Your task to perform on an android device: turn on translation in the chrome app Image 0: 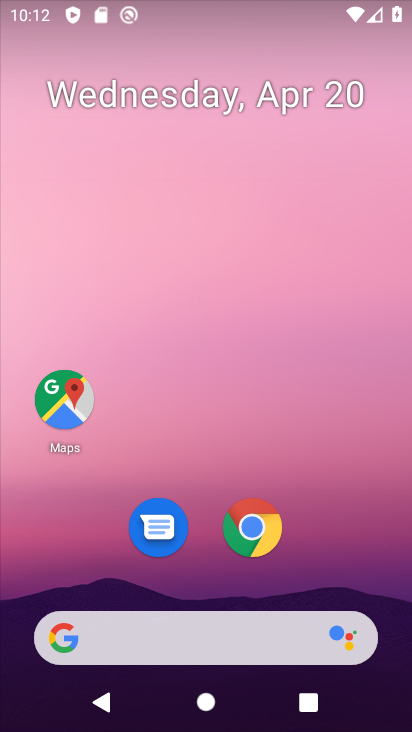
Step 0: click (268, 531)
Your task to perform on an android device: turn on translation in the chrome app Image 1: 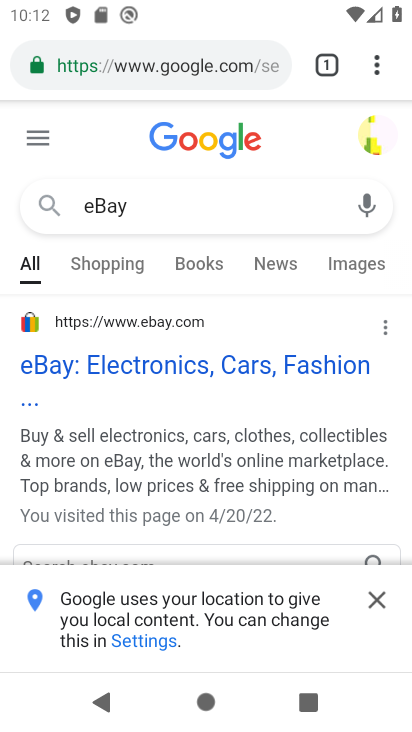
Step 1: click (374, 72)
Your task to perform on an android device: turn on translation in the chrome app Image 2: 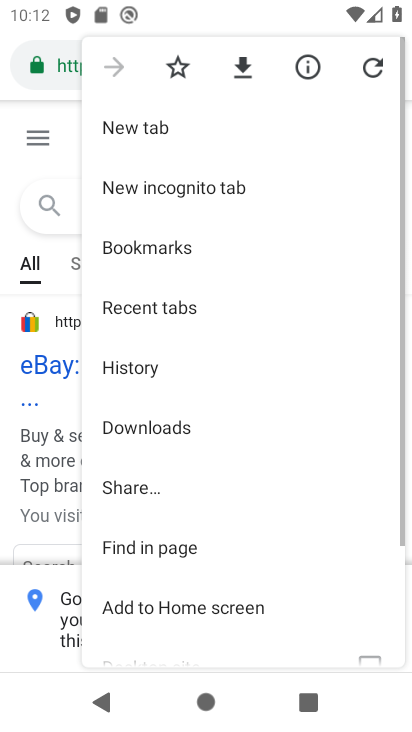
Step 2: drag from (150, 608) to (208, 101)
Your task to perform on an android device: turn on translation in the chrome app Image 3: 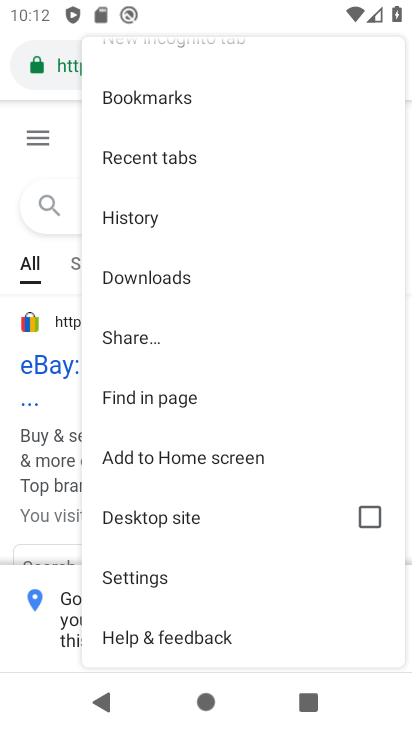
Step 3: click (156, 581)
Your task to perform on an android device: turn on translation in the chrome app Image 4: 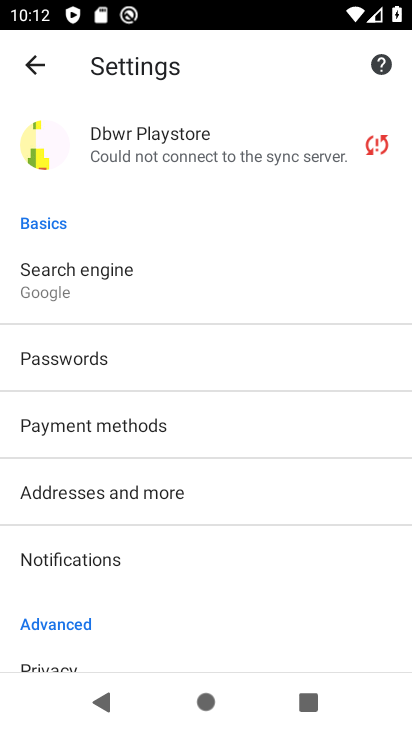
Step 4: drag from (112, 578) to (121, 301)
Your task to perform on an android device: turn on translation in the chrome app Image 5: 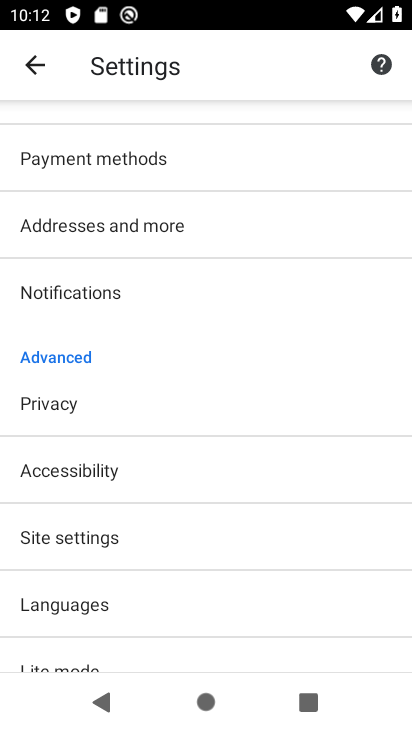
Step 5: drag from (69, 511) to (88, 307)
Your task to perform on an android device: turn on translation in the chrome app Image 6: 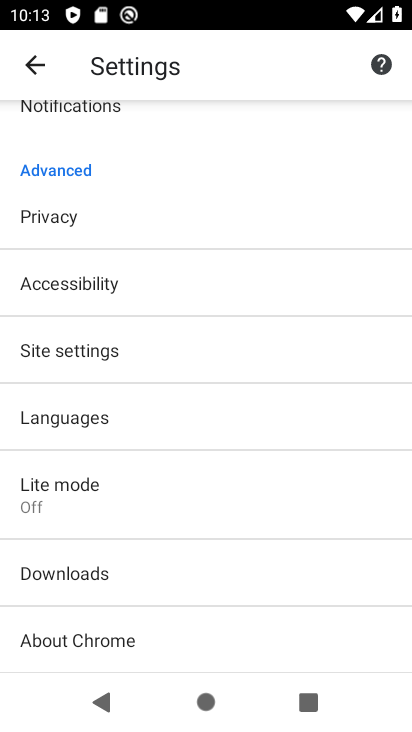
Step 6: click (84, 409)
Your task to perform on an android device: turn on translation in the chrome app Image 7: 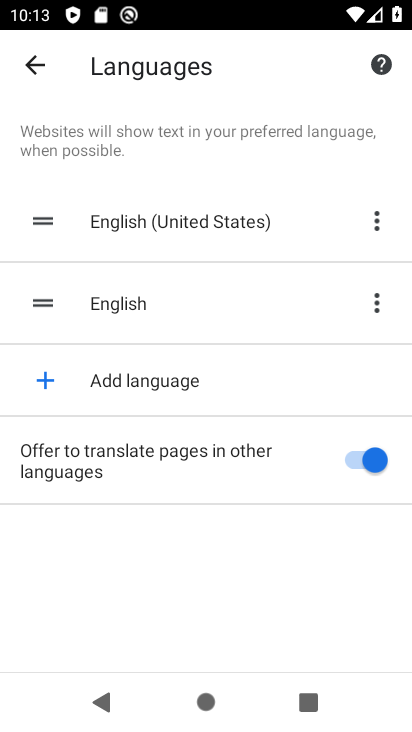
Step 7: task complete